Your task to perform on an android device: Open calendar and show me the first week of next month Image 0: 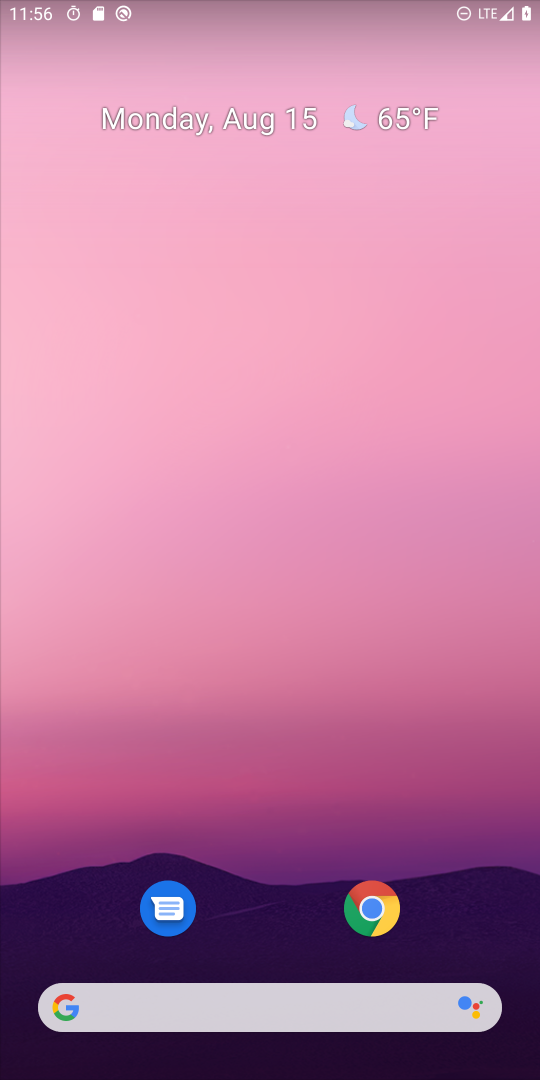
Step 0: click (304, 127)
Your task to perform on an android device: Open calendar and show me the first week of next month Image 1: 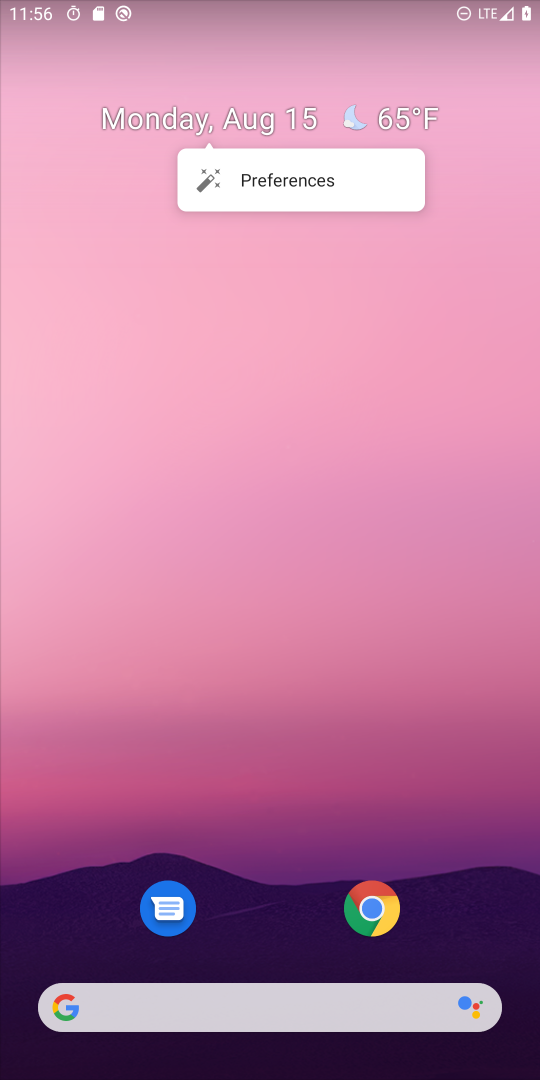
Step 1: click (257, 110)
Your task to perform on an android device: Open calendar and show me the first week of next month Image 2: 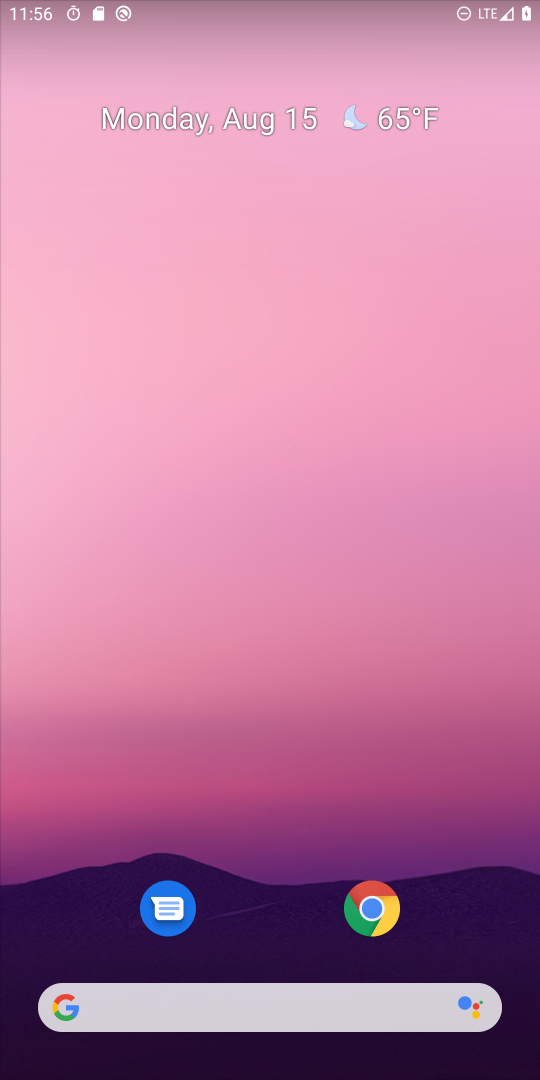
Step 2: click (245, 112)
Your task to perform on an android device: Open calendar and show me the first week of next month Image 3: 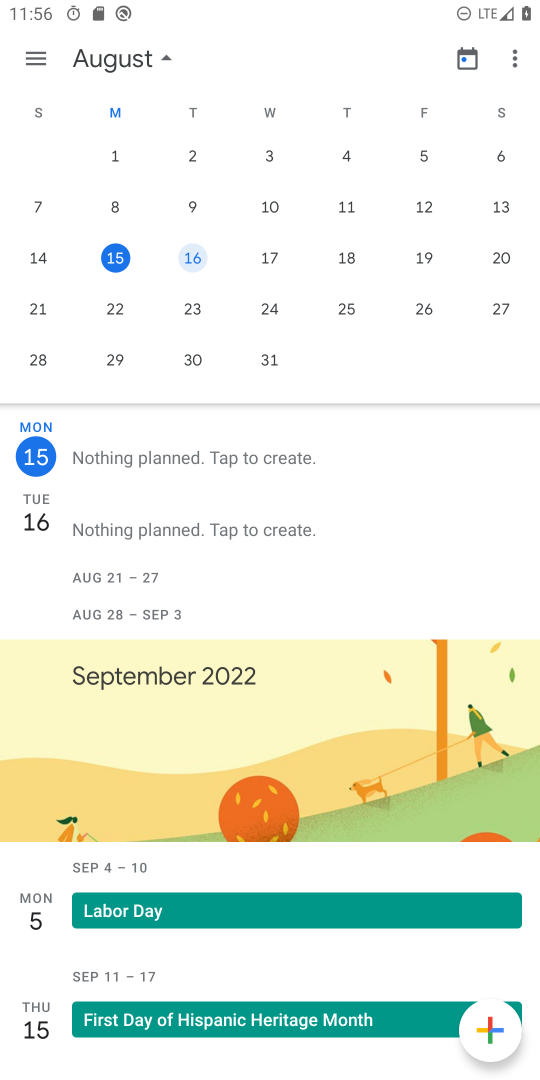
Step 3: drag from (481, 363) to (13, 297)
Your task to perform on an android device: Open calendar and show me the first week of next month Image 4: 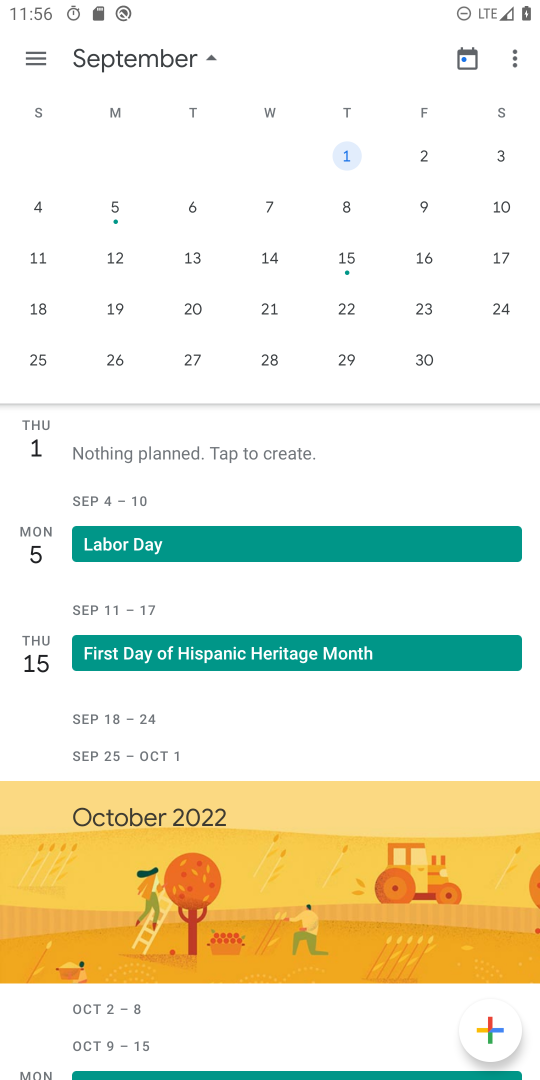
Step 4: click (431, 161)
Your task to perform on an android device: Open calendar and show me the first week of next month Image 5: 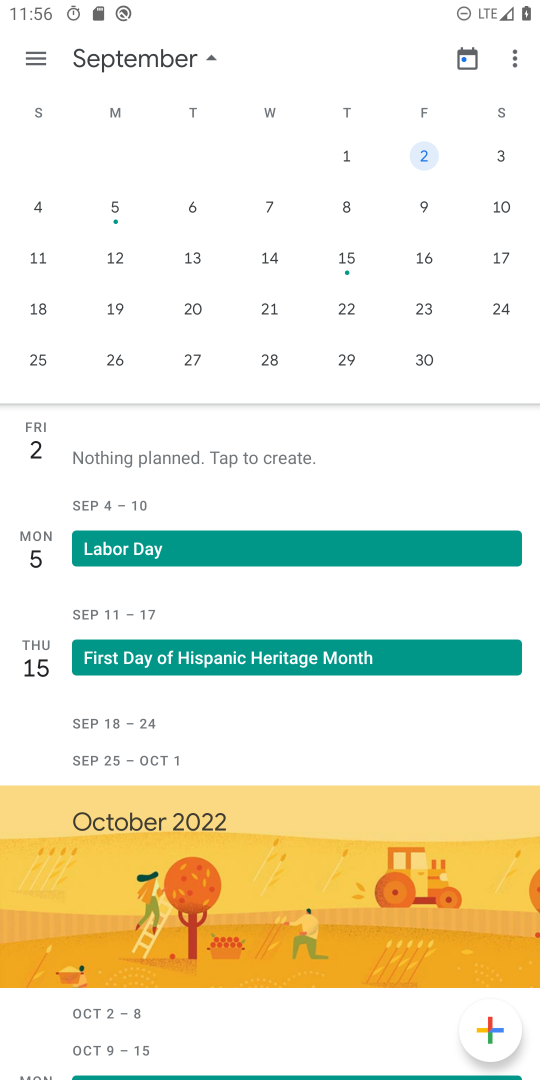
Step 5: task complete